Your task to perform on an android device: toggle wifi Image 0: 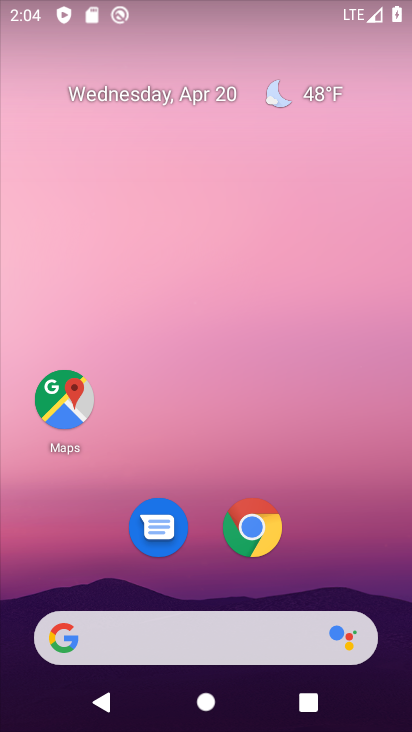
Step 0: drag from (169, 18) to (148, 441)
Your task to perform on an android device: toggle wifi Image 1: 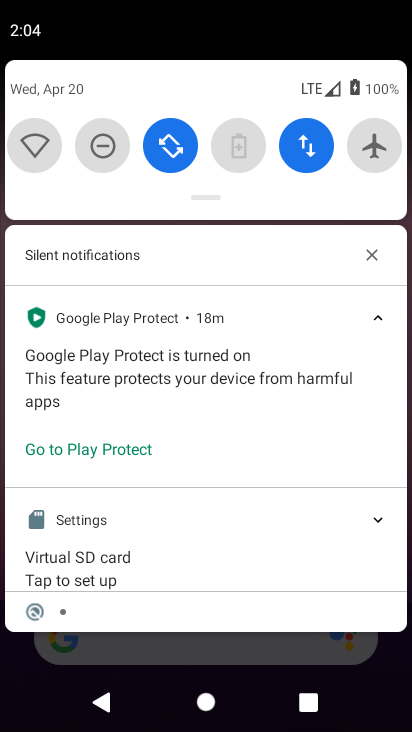
Step 1: click (42, 138)
Your task to perform on an android device: toggle wifi Image 2: 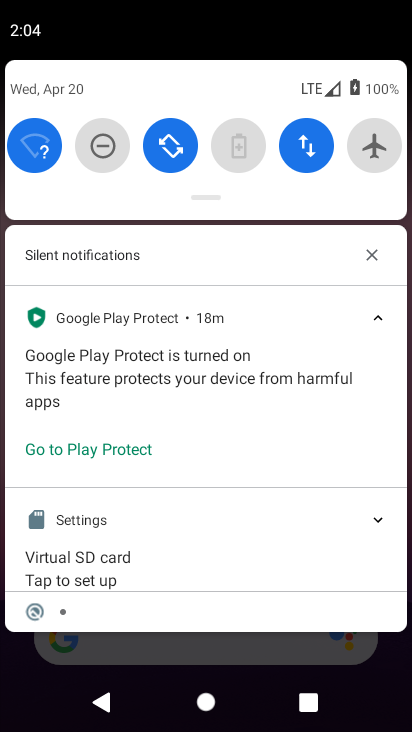
Step 2: click (42, 138)
Your task to perform on an android device: toggle wifi Image 3: 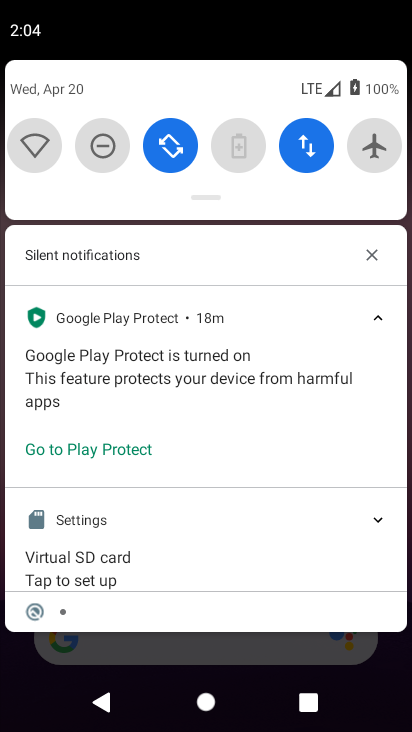
Step 3: click (42, 138)
Your task to perform on an android device: toggle wifi Image 4: 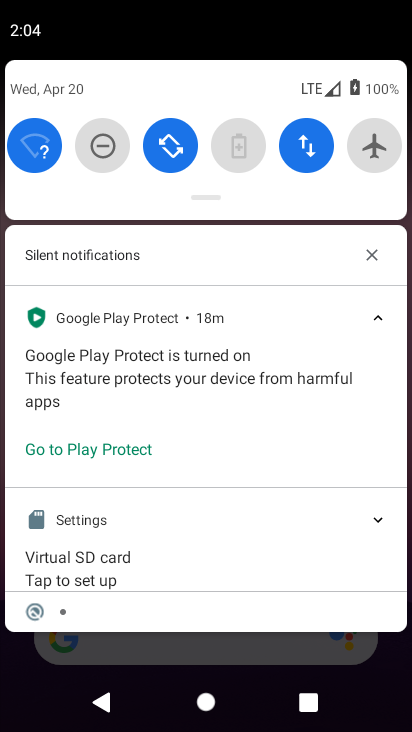
Step 4: task complete